Your task to perform on an android device: Open eBay Image 0: 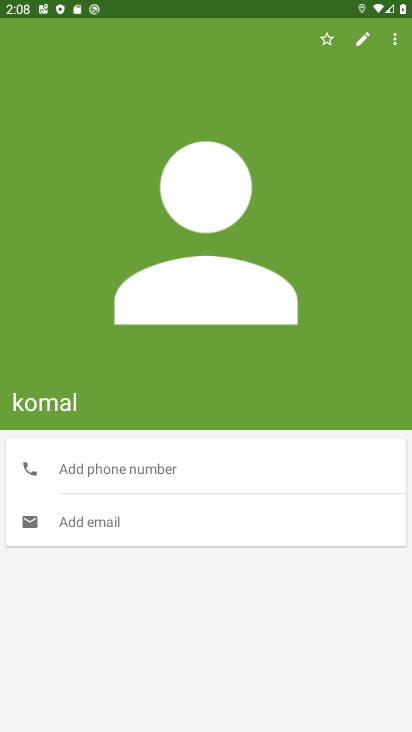
Step 0: drag from (356, 621) to (254, 161)
Your task to perform on an android device: Open eBay Image 1: 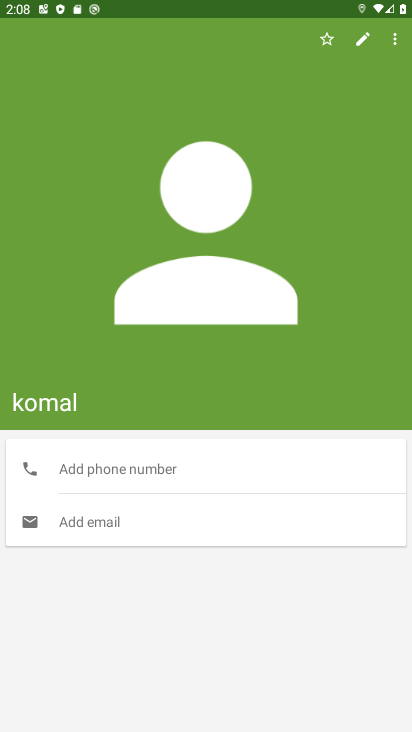
Step 1: press home button
Your task to perform on an android device: Open eBay Image 2: 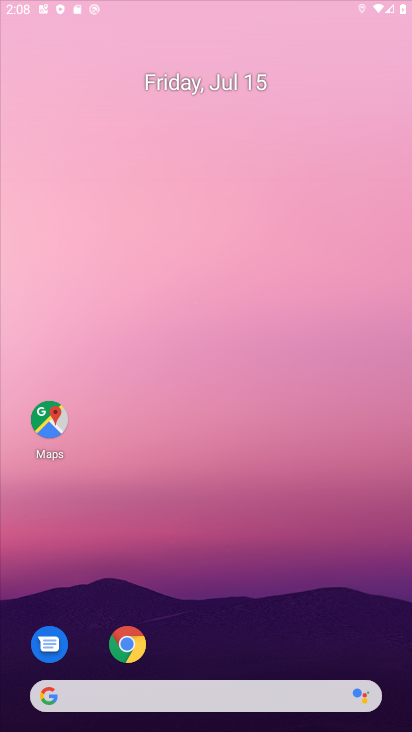
Step 2: drag from (345, 634) to (283, 66)
Your task to perform on an android device: Open eBay Image 3: 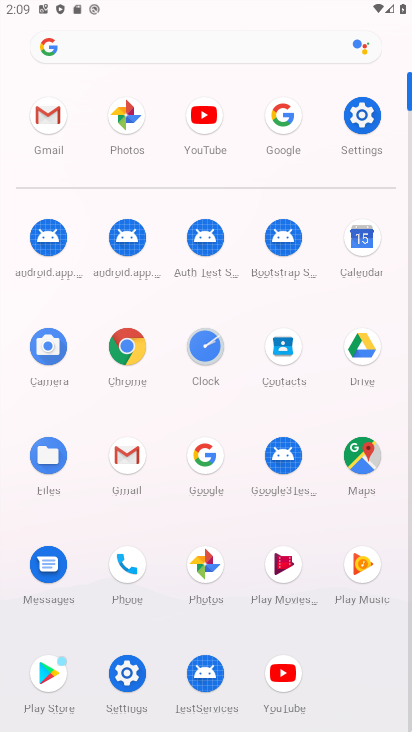
Step 3: click (196, 446)
Your task to perform on an android device: Open eBay Image 4: 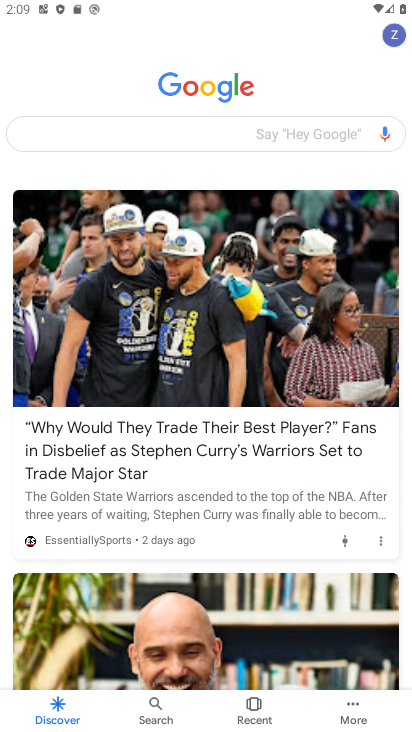
Step 4: click (162, 138)
Your task to perform on an android device: Open eBay Image 5: 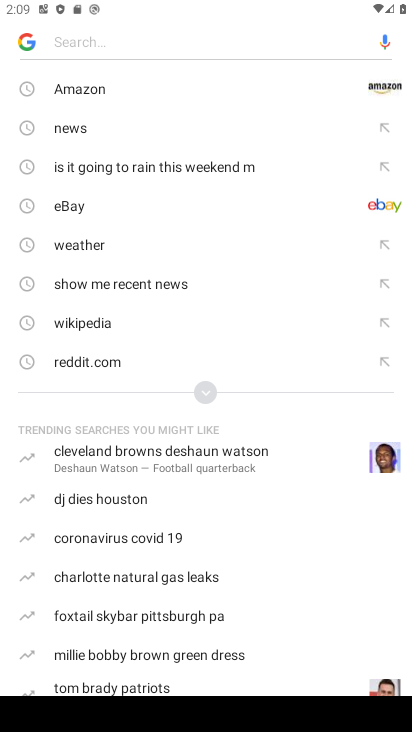
Step 5: click (104, 215)
Your task to perform on an android device: Open eBay Image 6: 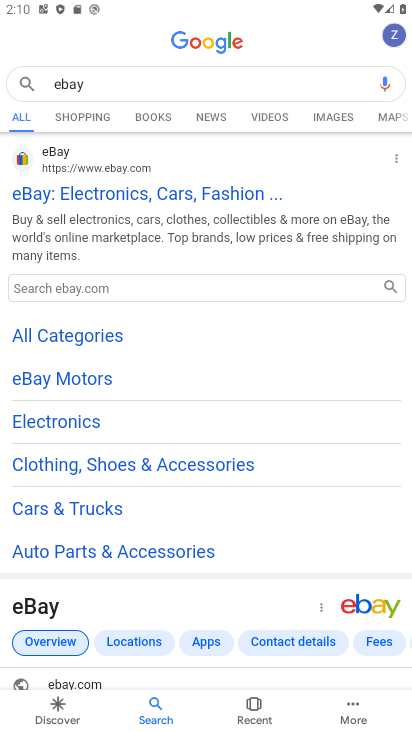
Step 6: task complete